Your task to perform on an android device: turn on sleep mode Image 0: 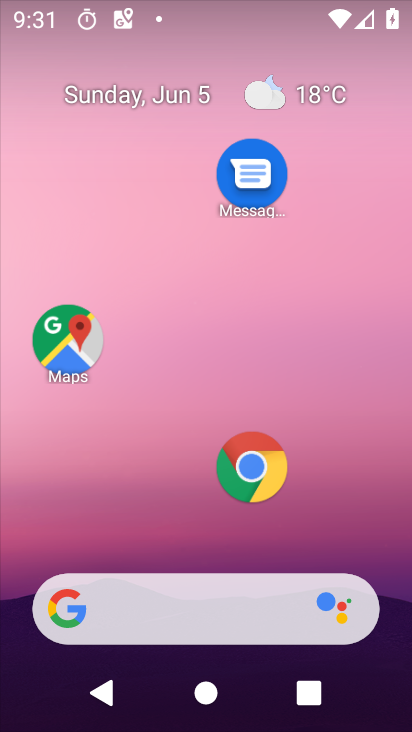
Step 0: click (256, 102)
Your task to perform on an android device: turn on sleep mode Image 1: 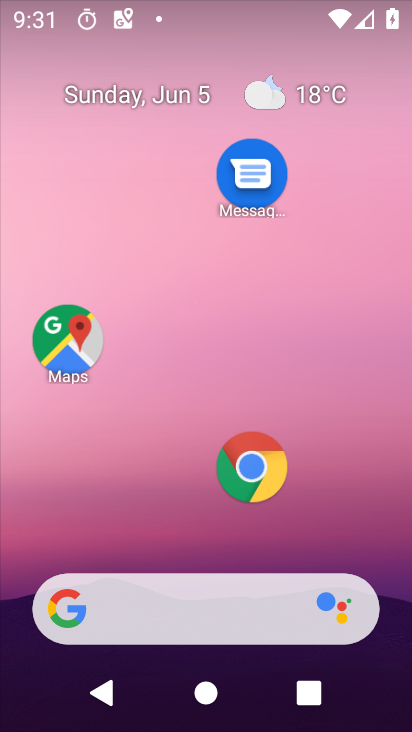
Step 1: drag from (226, 250) to (225, 152)
Your task to perform on an android device: turn on sleep mode Image 2: 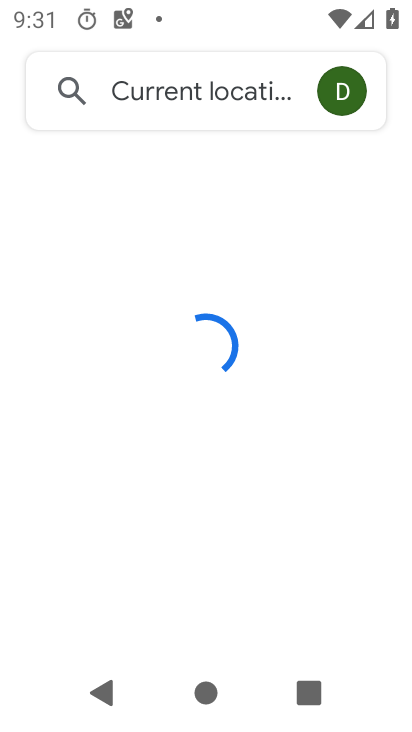
Step 2: press home button
Your task to perform on an android device: turn on sleep mode Image 3: 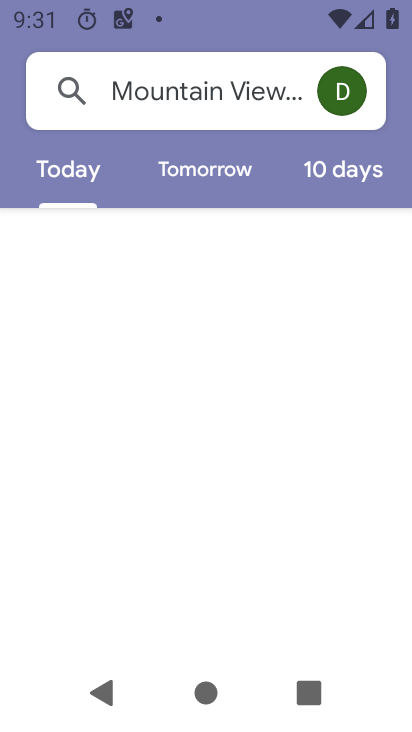
Step 3: drag from (182, 641) to (270, 179)
Your task to perform on an android device: turn on sleep mode Image 4: 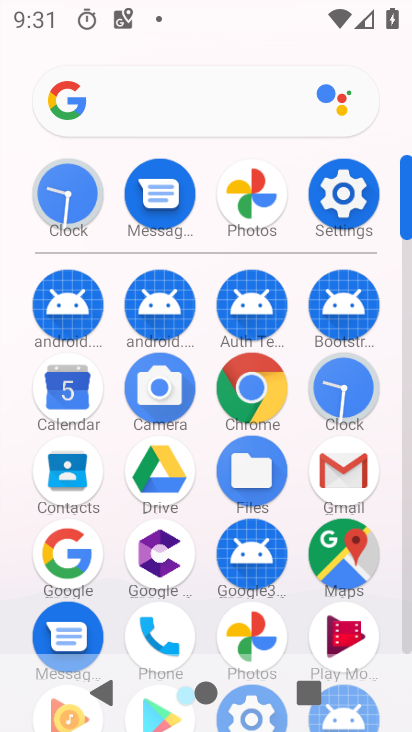
Step 4: drag from (211, 608) to (152, 170)
Your task to perform on an android device: turn on sleep mode Image 5: 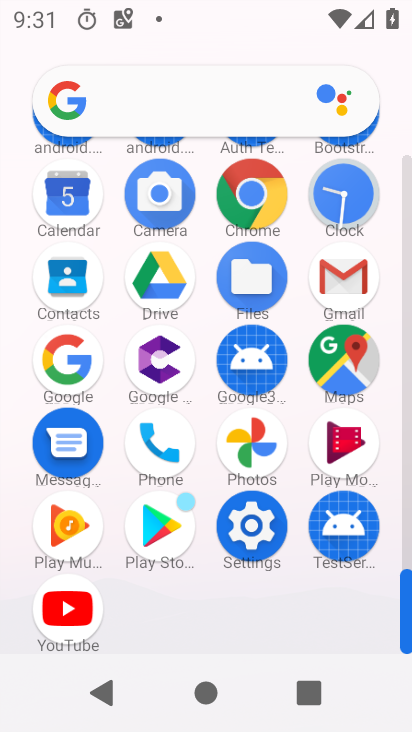
Step 5: click (246, 520)
Your task to perform on an android device: turn on sleep mode Image 6: 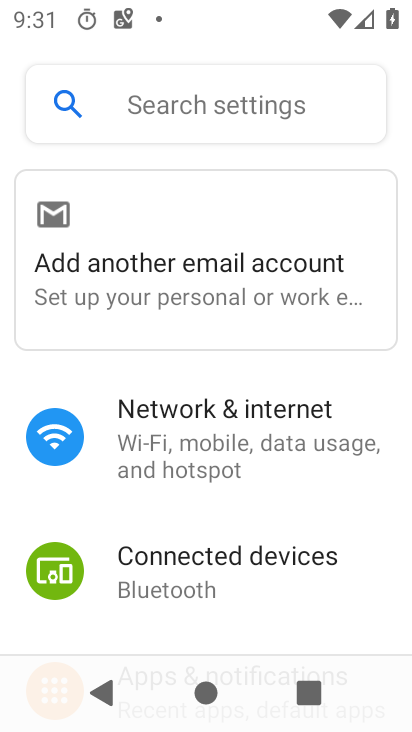
Step 6: drag from (240, 589) to (247, 232)
Your task to perform on an android device: turn on sleep mode Image 7: 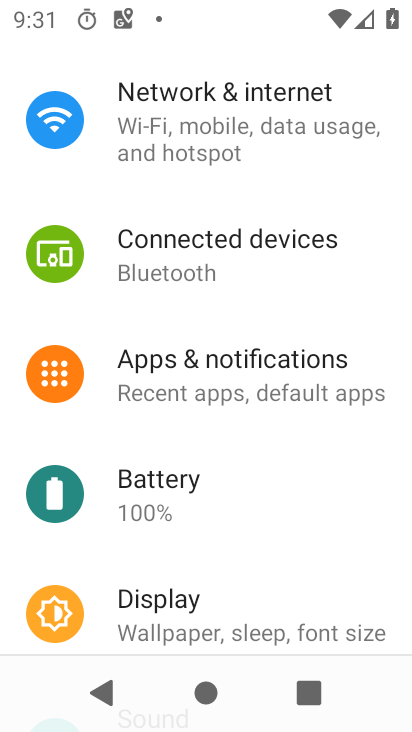
Step 7: click (206, 613)
Your task to perform on an android device: turn on sleep mode Image 8: 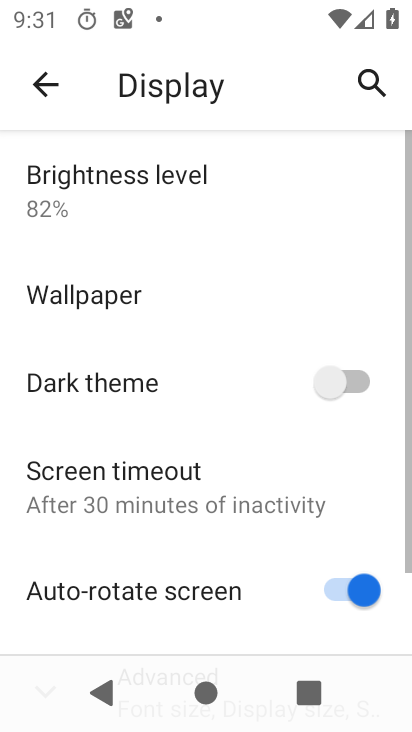
Step 8: click (239, 505)
Your task to perform on an android device: turn on sleep mode Image 9: 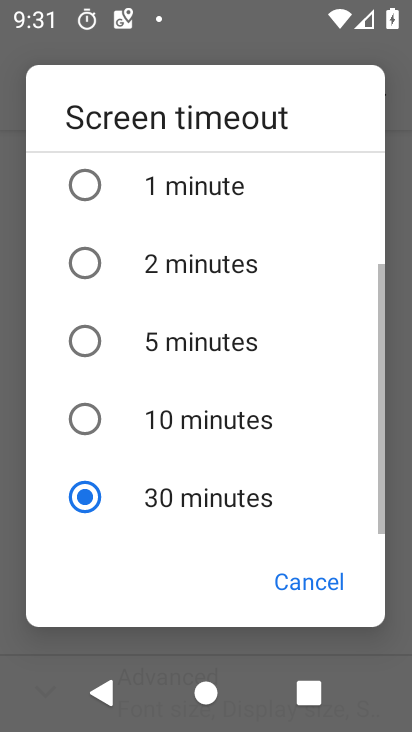
Step 9: task complete